Your task to perform on an android device: move an email to a new category in the gmail app Image 0: 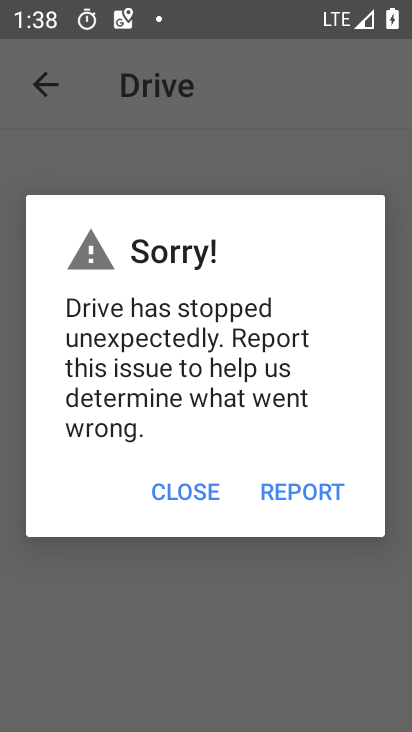
Step 0: press home button
Your task to perform on an android device: move an email to a new category in the gmail app Image 1: 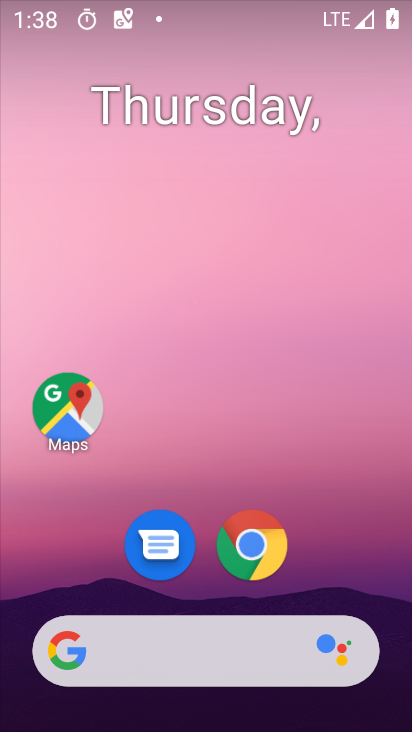
Step 1: drag from (307, 572) to (327, 147)
Your task to perform on an android device: move an email to a new category in the gmail app Image 2: 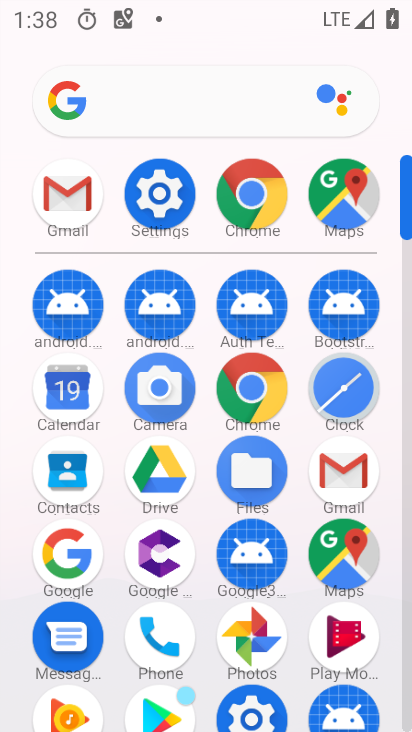
Step 2: click (336, 475)
Your task to perform on an android device: move an email to a new category in the gmail app Image 3: 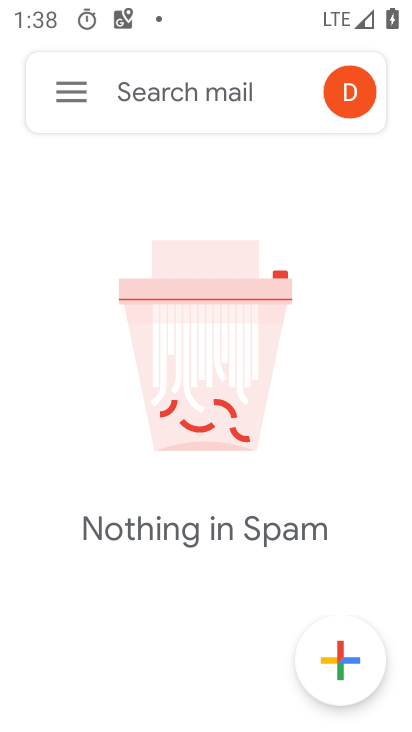
Step 3: click (79, 94)
Your task to perform on an android device: move an email to a new category in the gmail app Image 4: 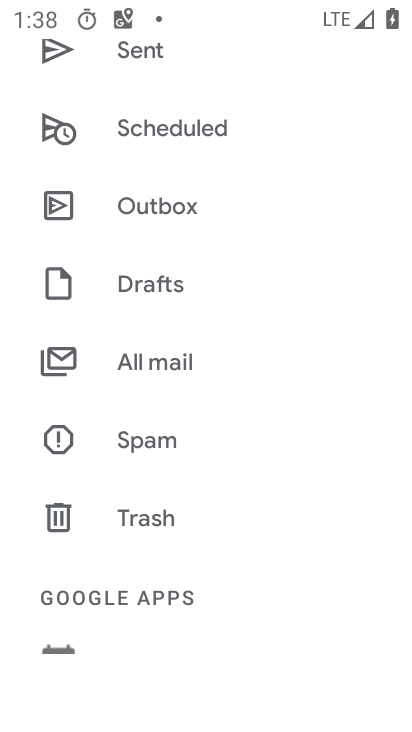
Step 4: task complete